Your task to perform on an android device: Is it going to rain tomorrow? Image 0: 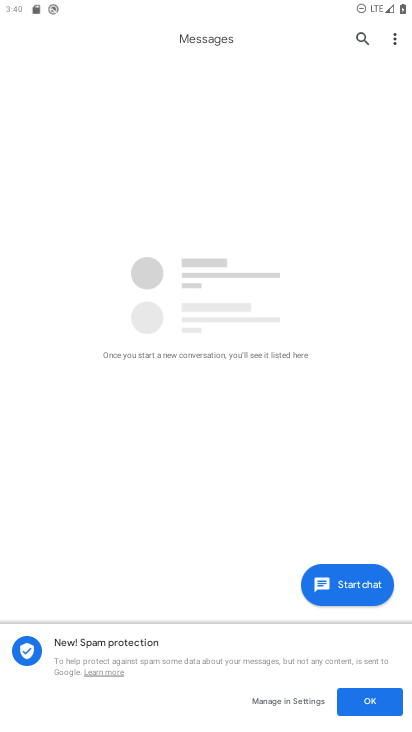
Step 0: press home button
Your task to perform on an android device: Is it going to rain tomorrow? Image 1: 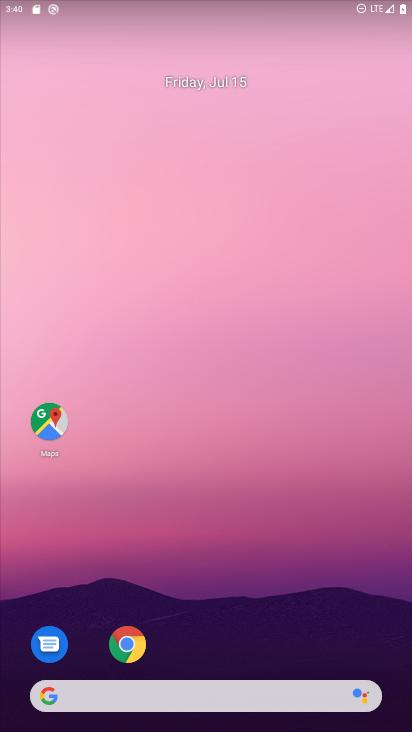
Step 1: click (193, 703)
Your task to perform on an android device: Is it going to rain tomorrow? Image 2: 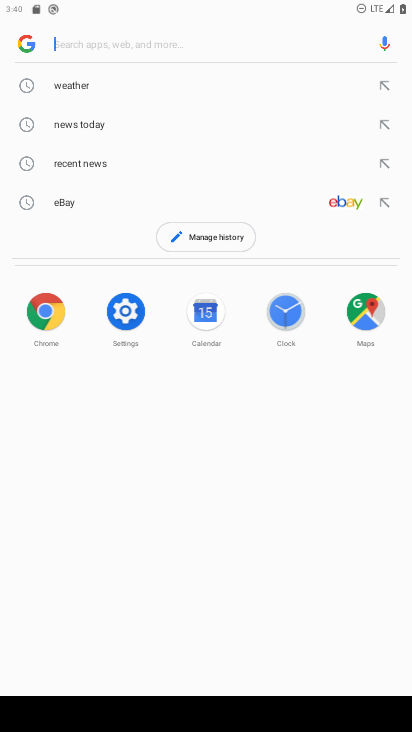
Step 2: click (49, 77)
Your task to perform on an android device: Is it going to rain tomorrow? Image 3: 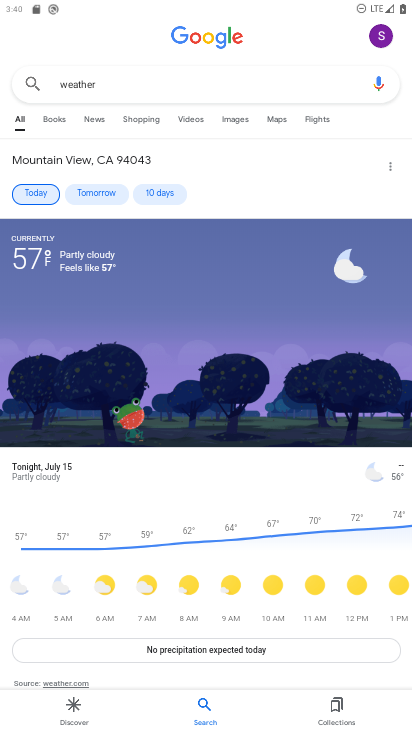
Step 3: click (93, 188)
Your task to perform on an android device: Is it going to rain tomorrow? Image 4: 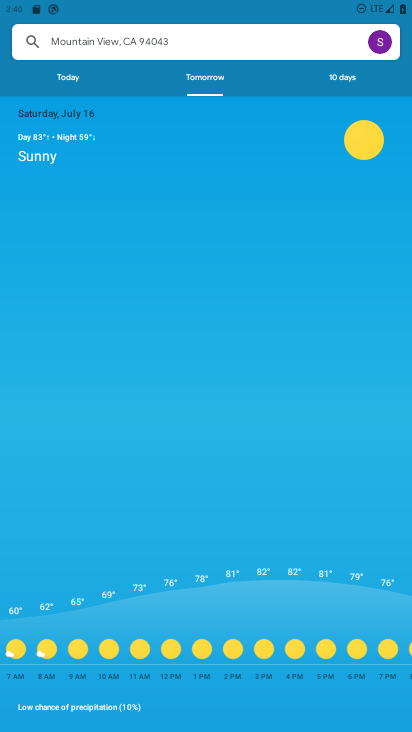
Step 4: task complete